Your task to perform on an android device: star an email in the gmail app Image 0: 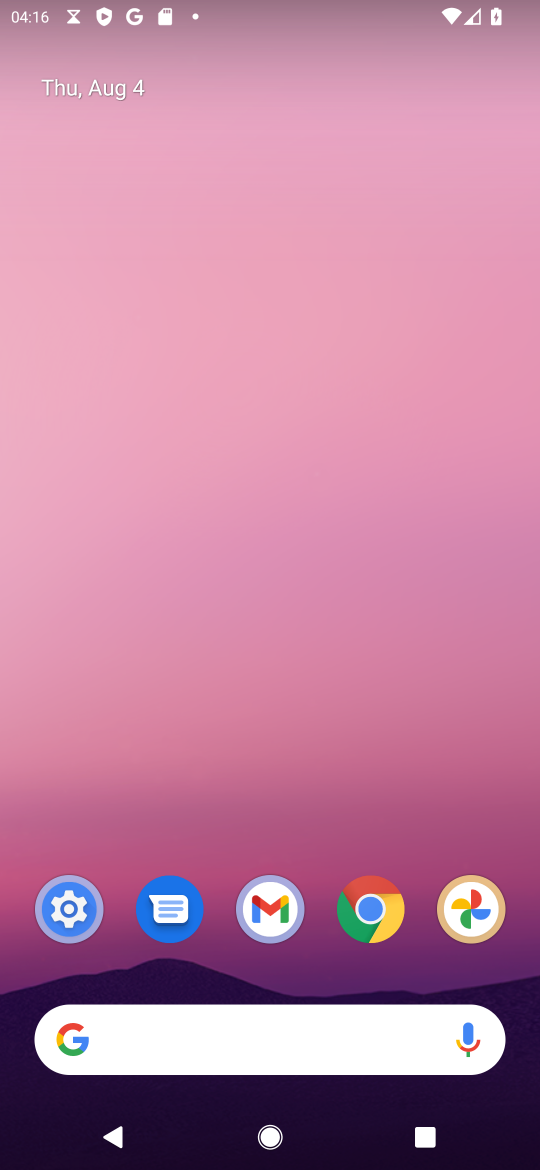
Step 0: press home button
Your task to perform on an android device: star an email in the gmail app Image 1: 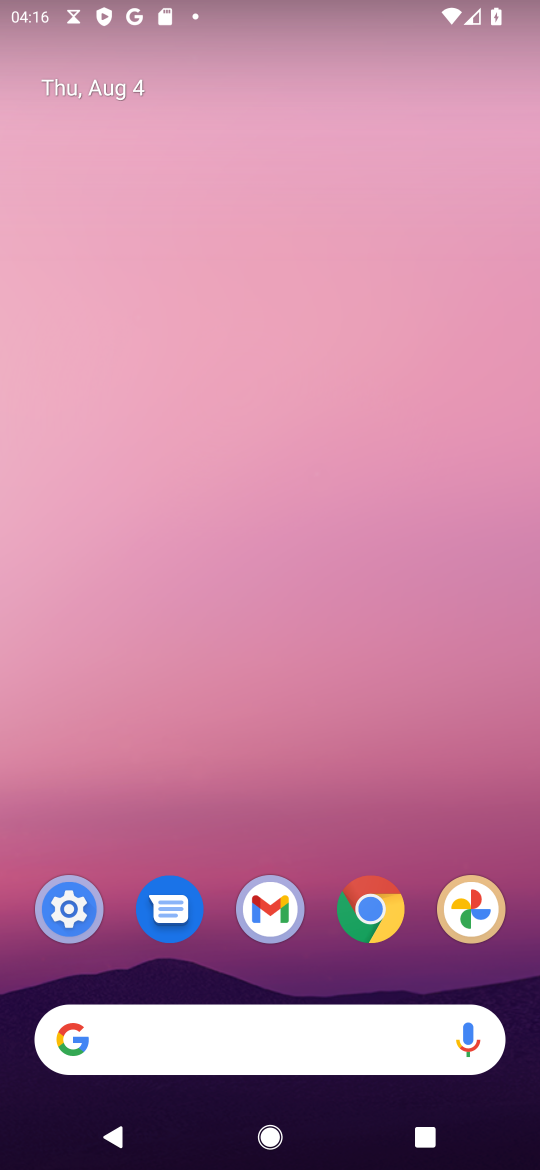
Step 1: click (268, 910)
Your task to perform on an android device: star an email in the gmail app Image 2: 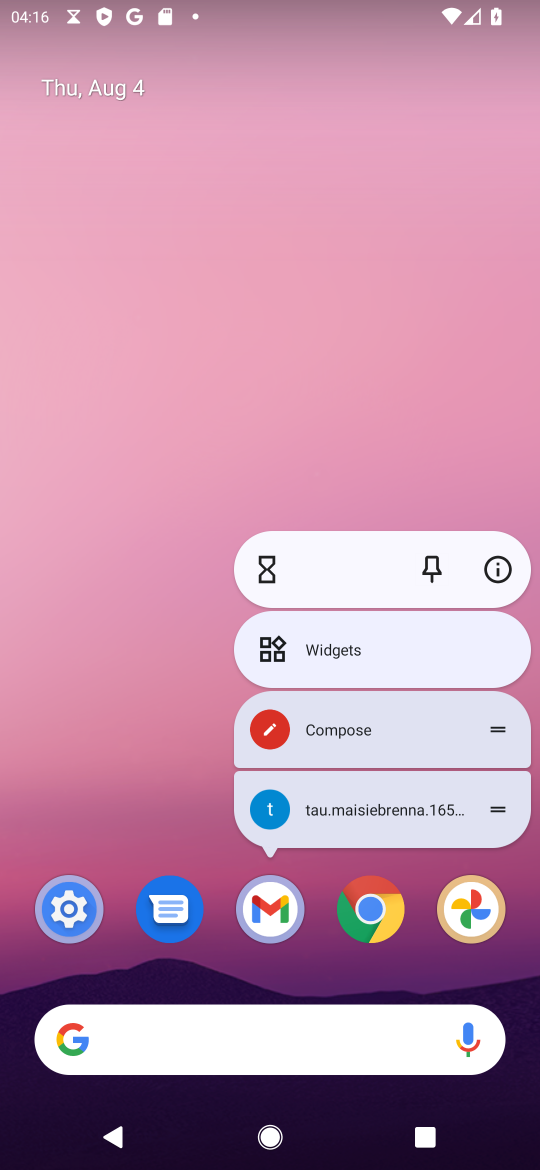
Step 2: click (266, 907)
Your task to perform on an android device: star an email in the gmail app Image 3: 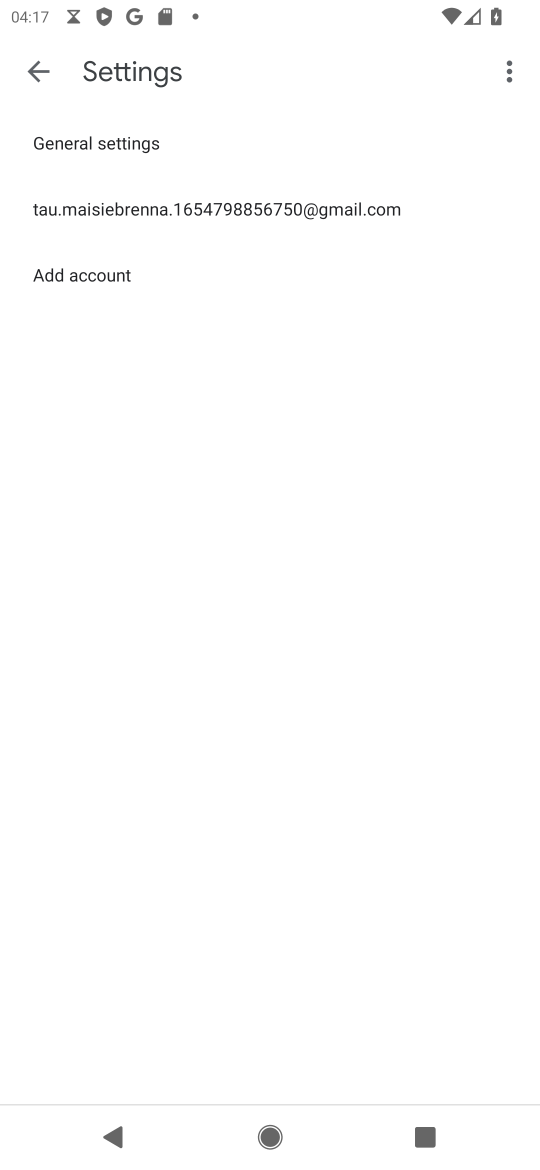
Step 3: click (39, 74)
Your task to perform on an android device: star an email in the gmail app Image 4: 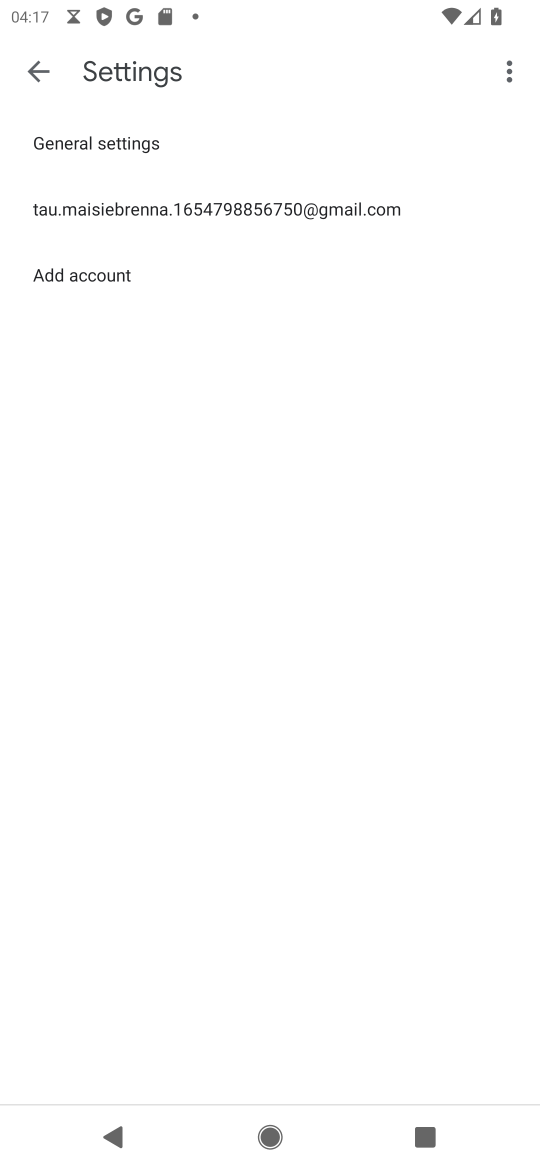
Step 4: click (42, 67)
Your task to perform on an android device: star an email in the gmail app Image 5: 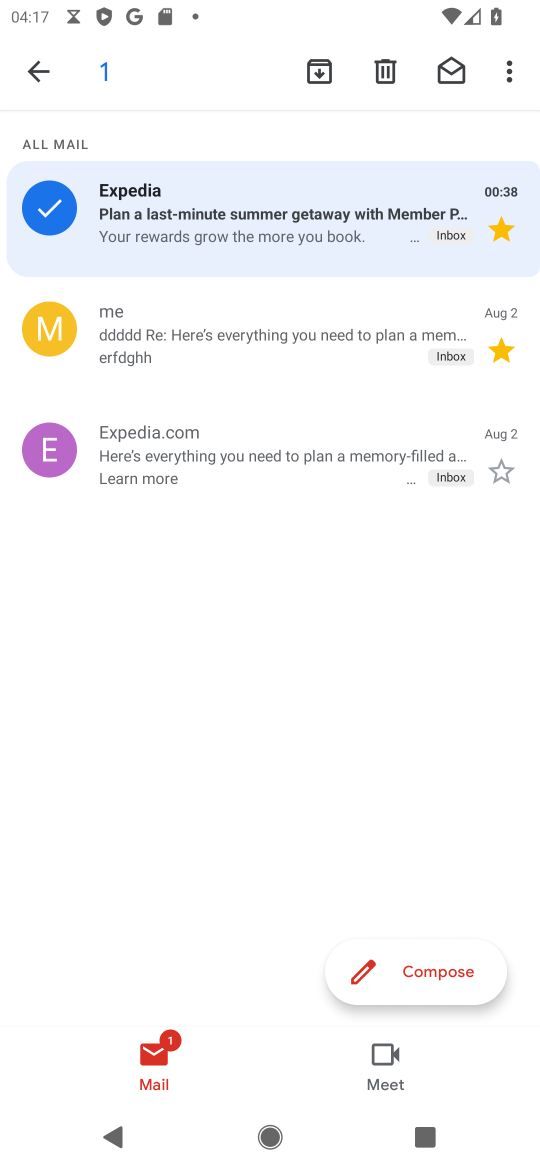
Step 5: click (76, 564)
Your task to perform on an android device: star an email in the gmail app Image 6: 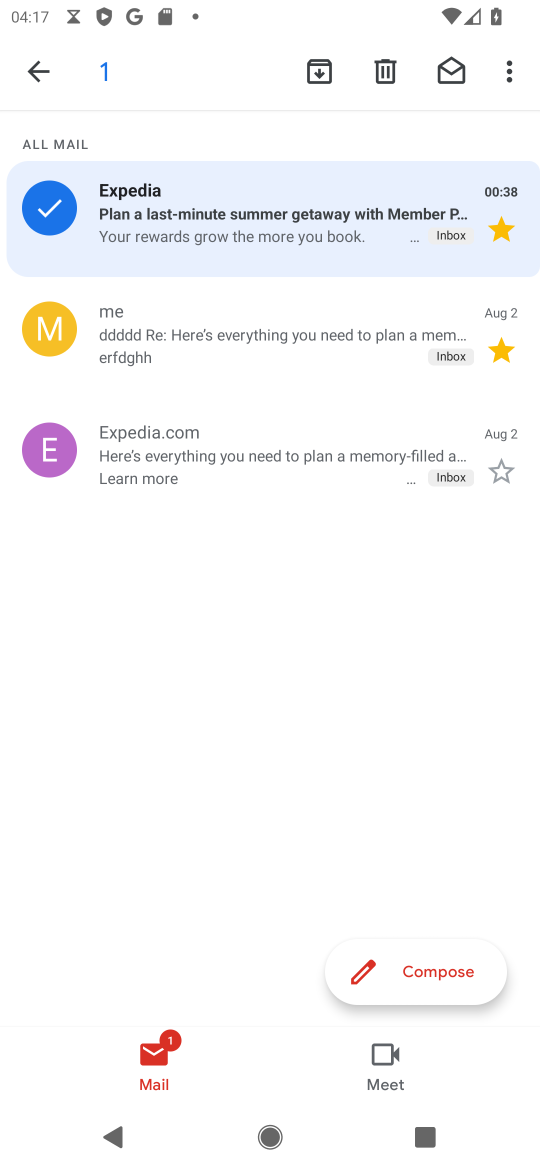
Step 6: click (67, 224)
Your task to perform on an android device: star an email in the gmail app Image 7: 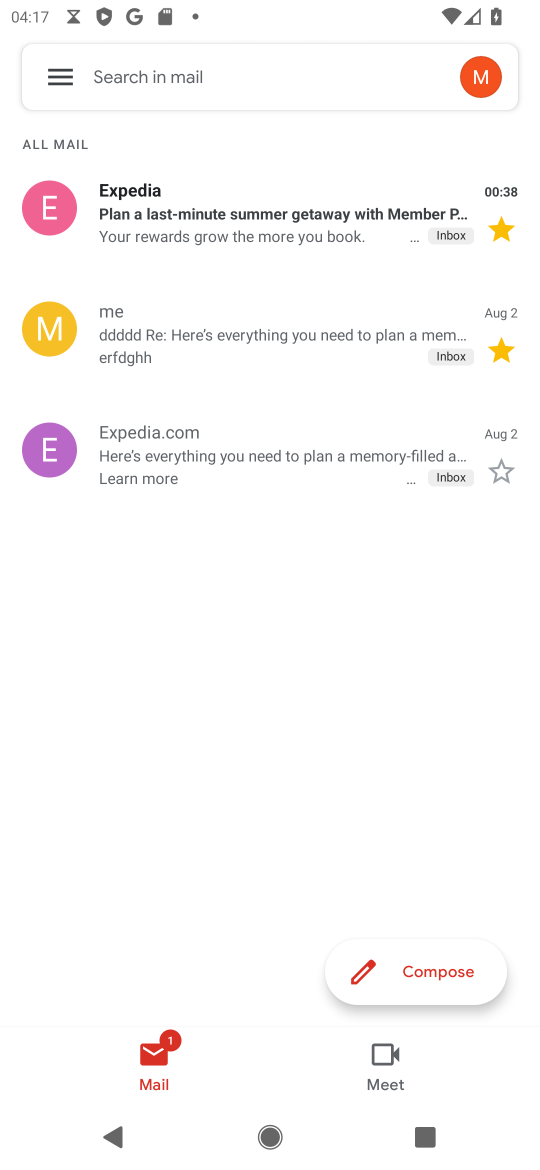
Step 7: click (51, 453)
Your task to perform on an android device: star an email in the gmail app Image 8: 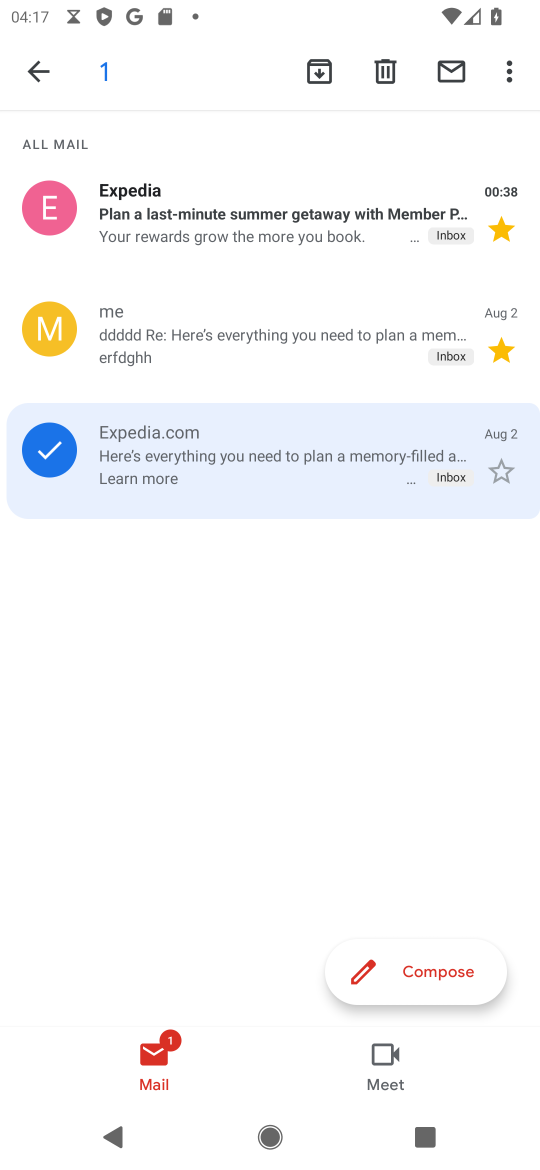
Step 8: click (510, 66)
Your task to perform on an android device: star an email in the gmail app Image 9: 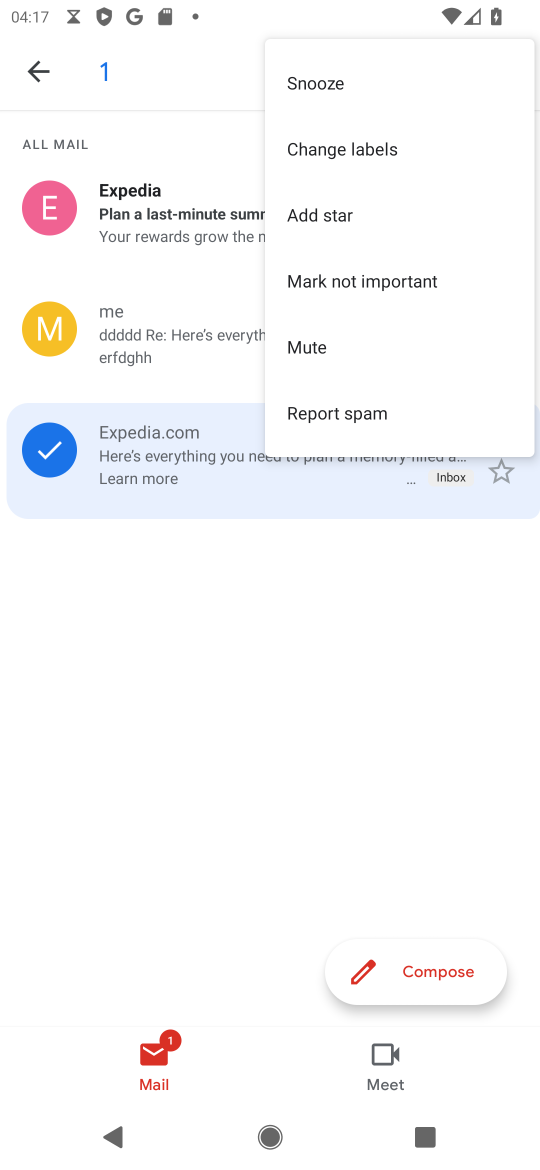
Step 9: click (321, 208)
Your task to perform on an android device: star an email in the gmail app Image 10: 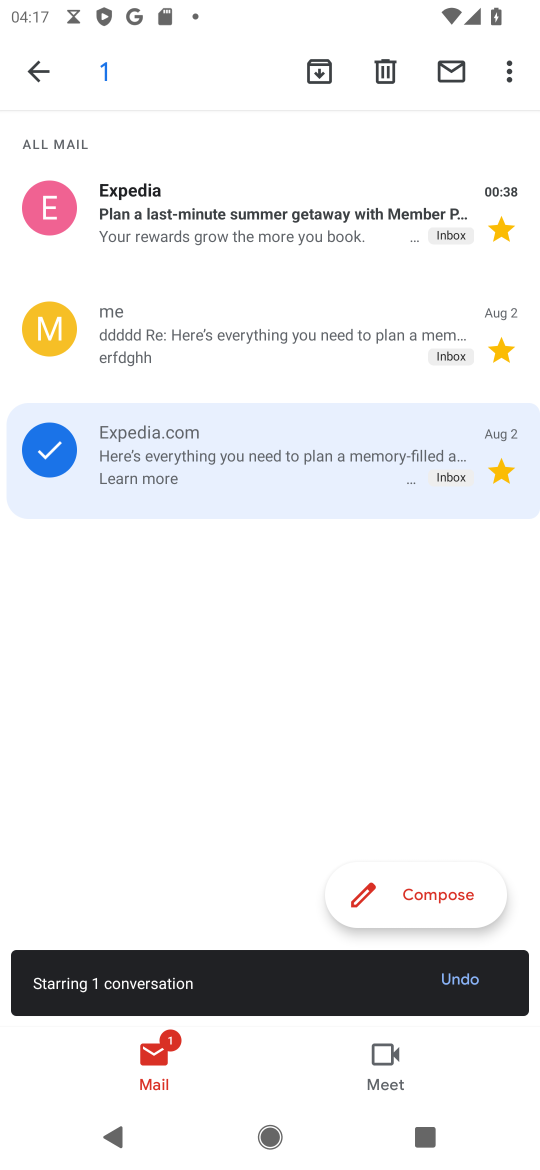
Step 10: click (58, 464)
Your task to perform on an android device: star an email in the gmail app Image 11: 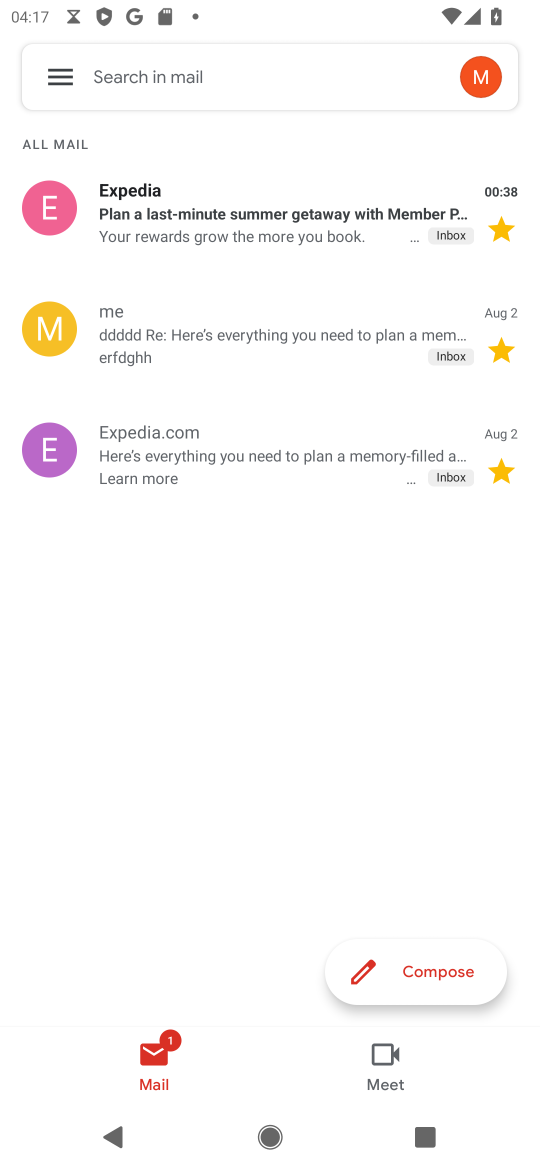
Step 11: task complete